Your task to perform on an android device: open the mobile data screen to see how much data has been used Image 0: 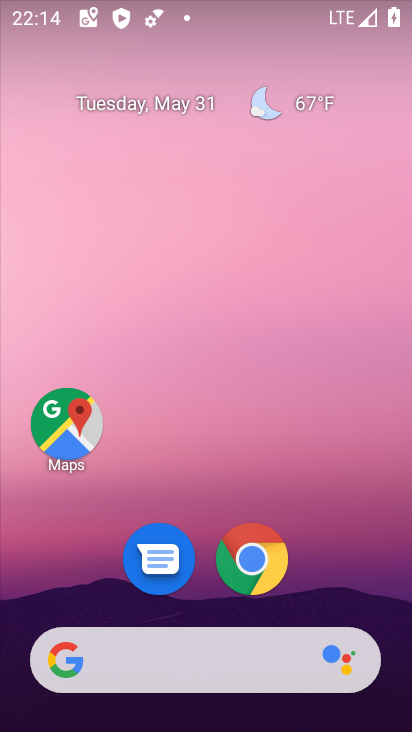
Step 0: press home button
Your task to perform on an android device: open the mobile data screen to see how much data has been used Image 1: 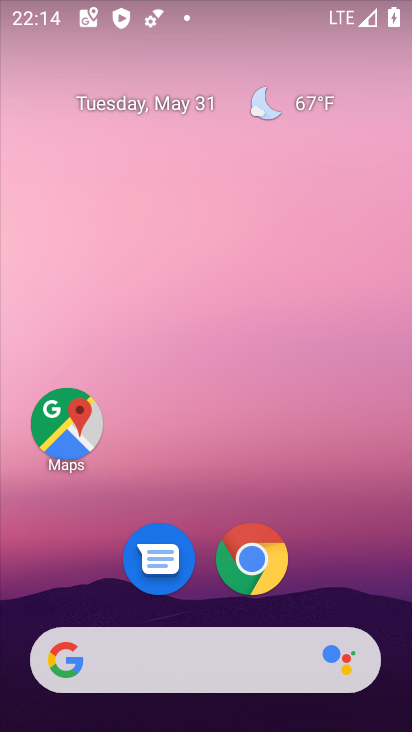
Step 1: drag from (321, 550) to (335, 39)
Your task to perform on an android device: open the mobile data screen to see how much data has been used Image 2: 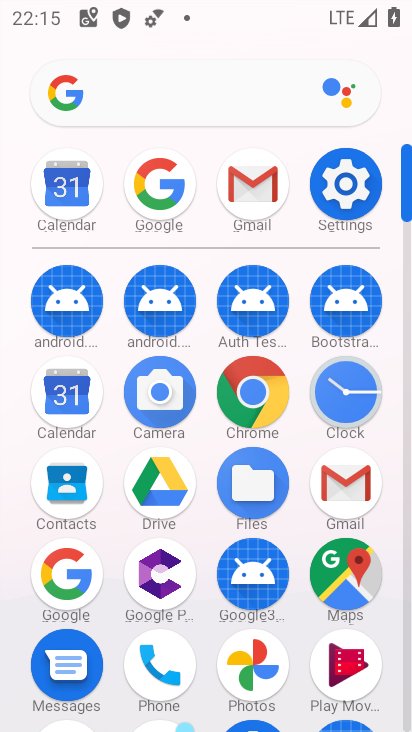
Step 2: click (349, 181)
Your task to perform on an android device: open the mobile data screen to see how much data has been used Image 3: 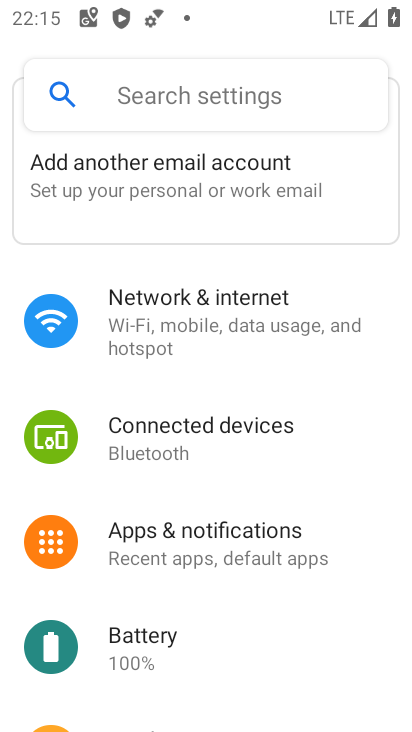
Step 3: click (198, 330)
Your task to perform on an android device: open the mobile data screen to see how much data has been used Image 4: 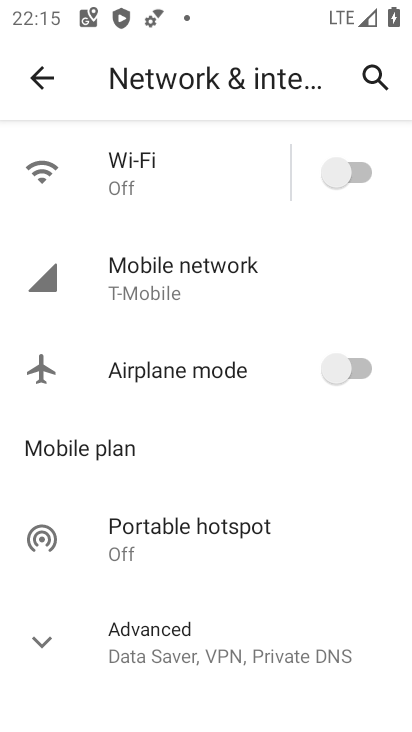
Step 4: click (188, 280)
Your task to perform on an android device: open the mobile data screen to see how much data has been used Image 5: 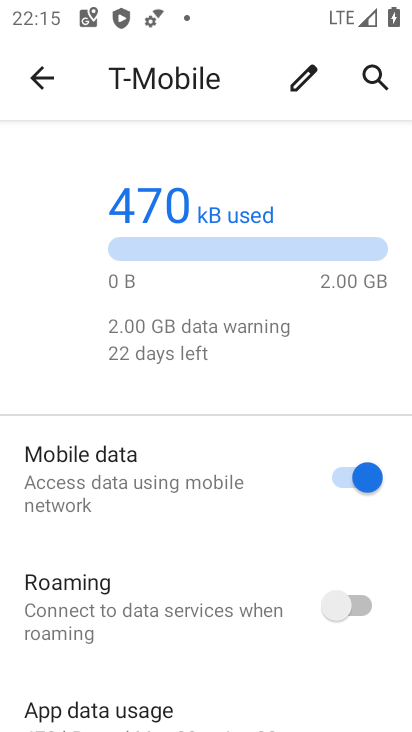
Step 5: task complete